Your task to perform on an android device: refresh tabs in the chrome app Image 0: 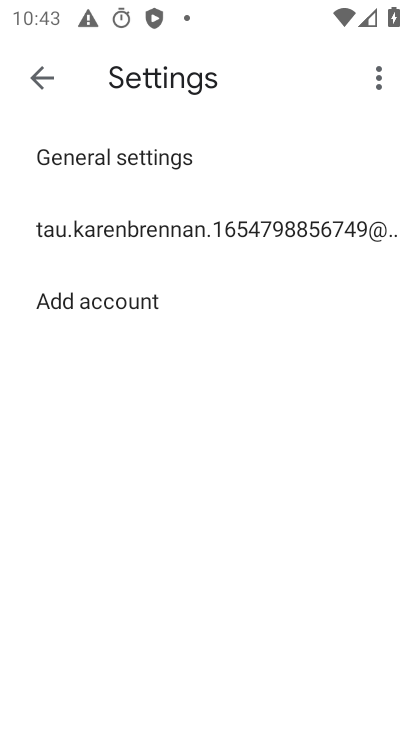
Step 0: click (48, 78)
Your task to perform on an android device: refresh tabs in the chrome app Image 1: 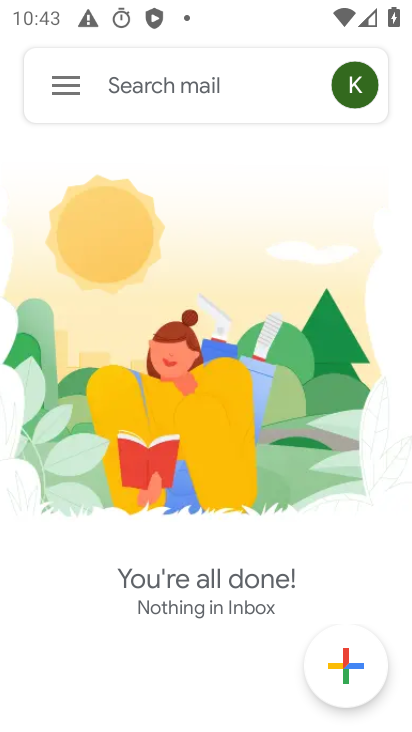
Step 1: press home button
Your task to perform on an android device: refresh tabs in the chrome app Image 2: 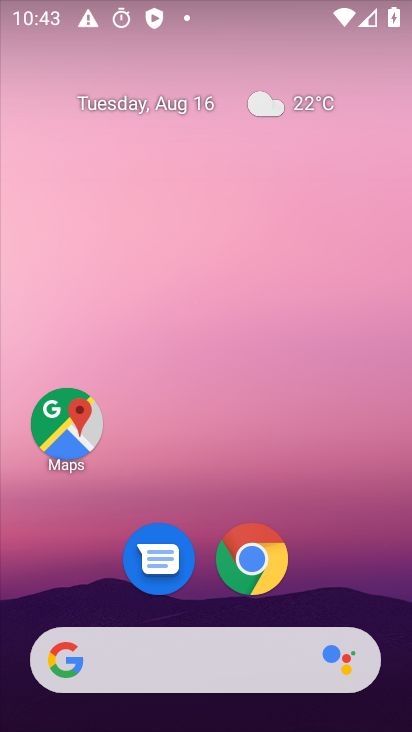
Step 2: click (253, 549)
Your task to perform on an android device: refresh tabs in the chrome app Image 3: 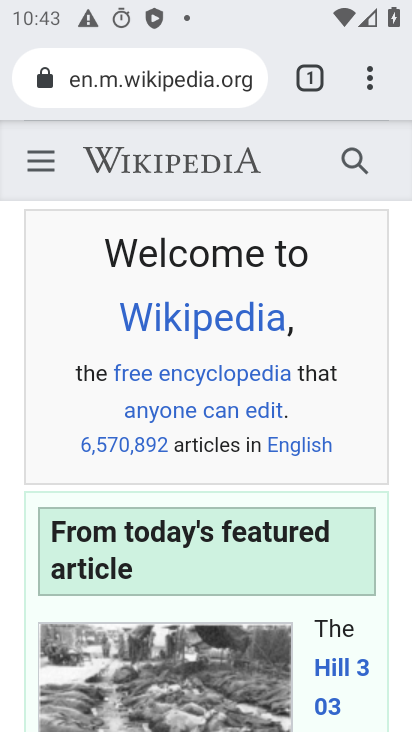
Step 3: click (366, 87)
Your task to perform on an android device: refresh tabs in the chrome app Image 4: 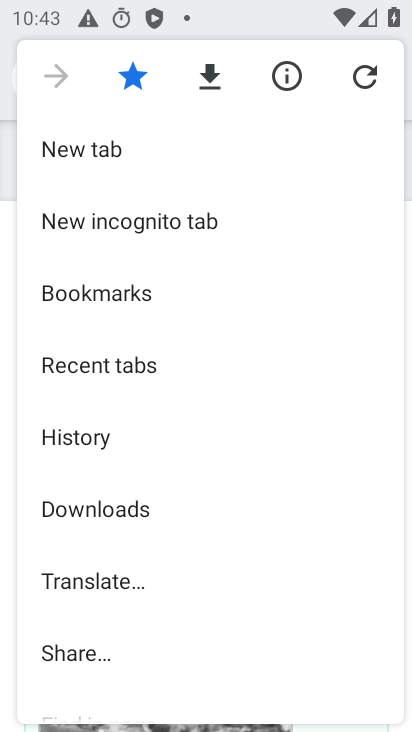
Step 4: click (366, 74)
Your task to perform on an android device: refresh tabs in the chrome app Image 5: 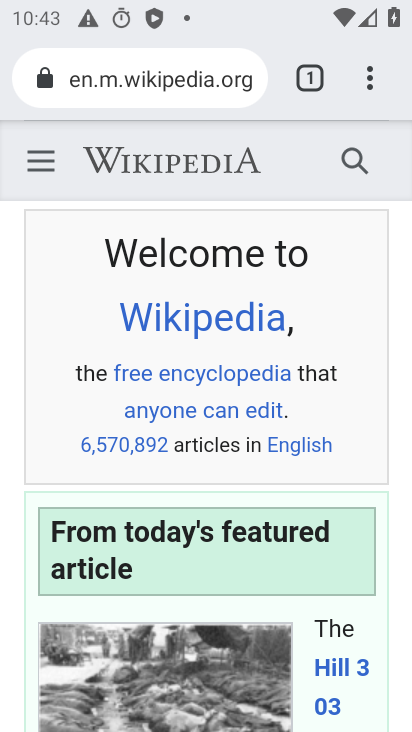
Step 5: task complete